Your task to perform on an android device: Open Google Chrome Image 0: 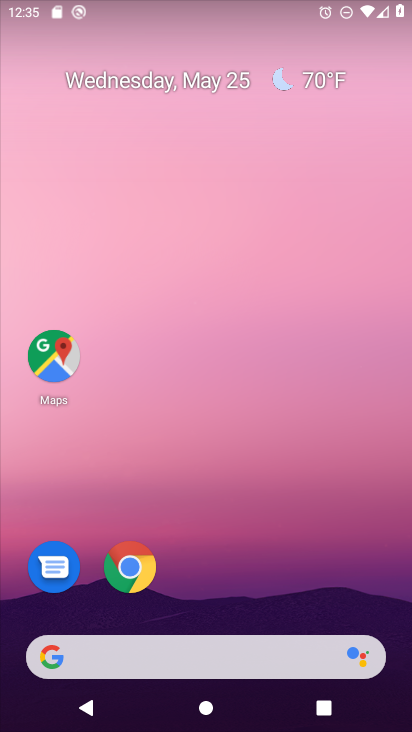
Step 0: click (134, 567)
Your task to perform on an android device: Open Google Chrome Image 1: 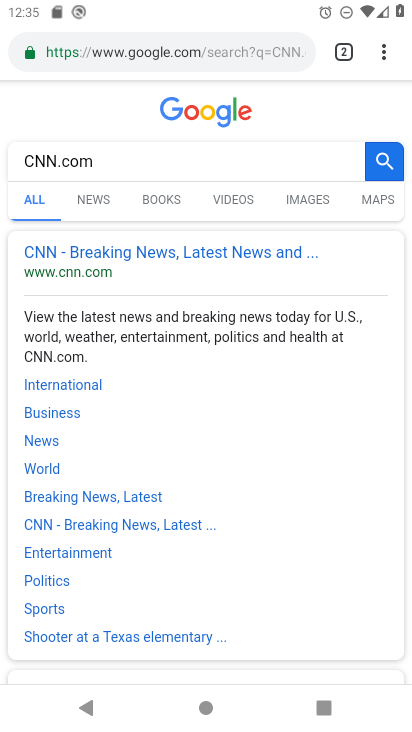
Step 1: task complete